Your task to perform on an android device: open chrome privacy settings Image 0: 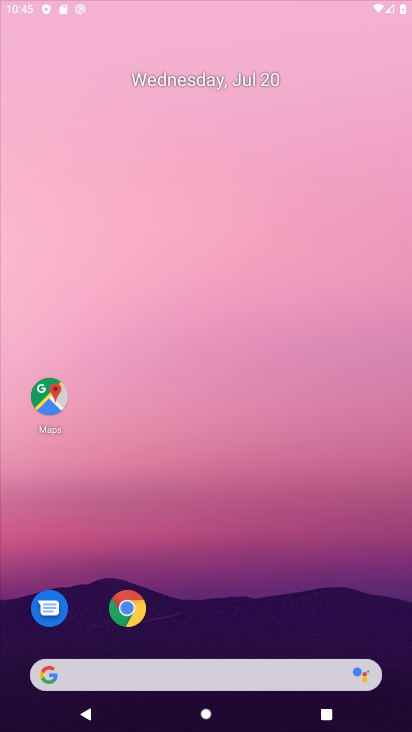
Step 0: drag from (349, 626) to (232, 100)
Your task to perform on an android device: open chrome privacy settings Image 1: 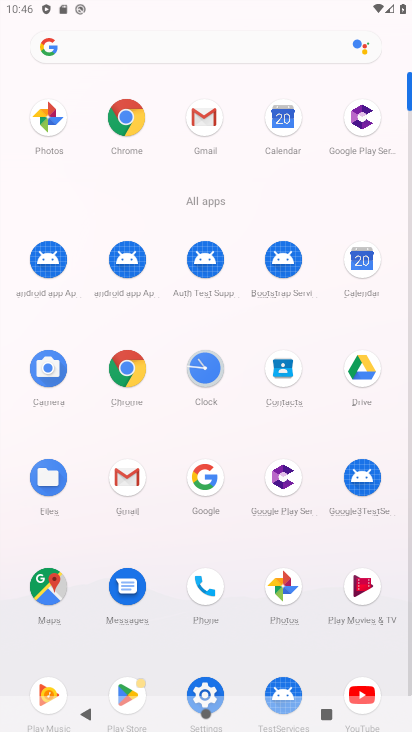
Step 1: click (117, 380)
Your task to perform on an android device: open chrome privacy settings Image 2: 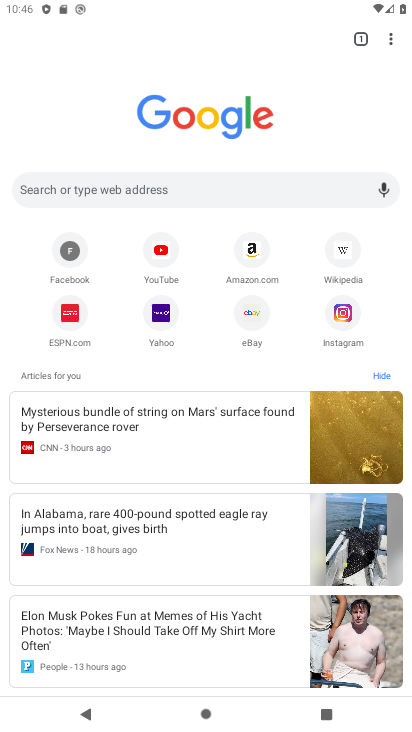
Step 2: click (390, 35)
Your task to perform on an android device: open chrome privacy settings Image 3: 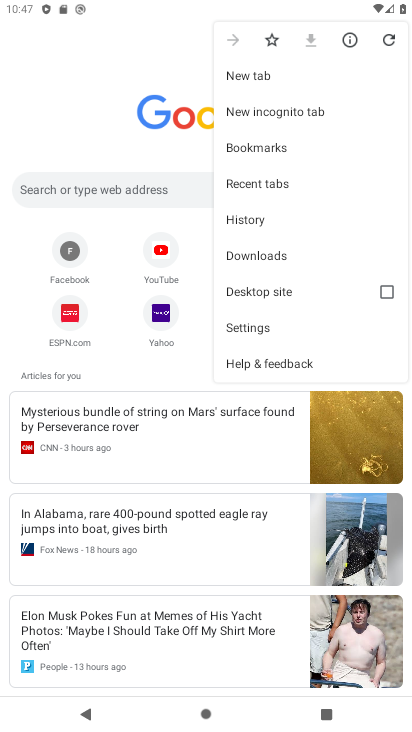
Step 3: click (259, 324)
Your task to perform on an android device: open chrome privacy settings Image 4: 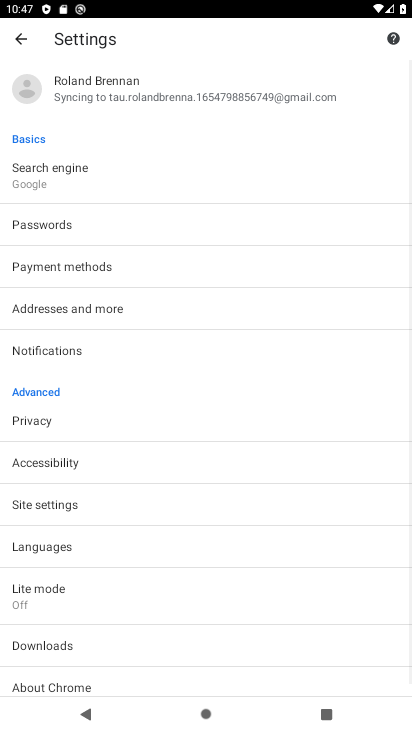
Step 4: click (60, 429)
Your task to perform on an android device: open chrome privacy settings Image 5: 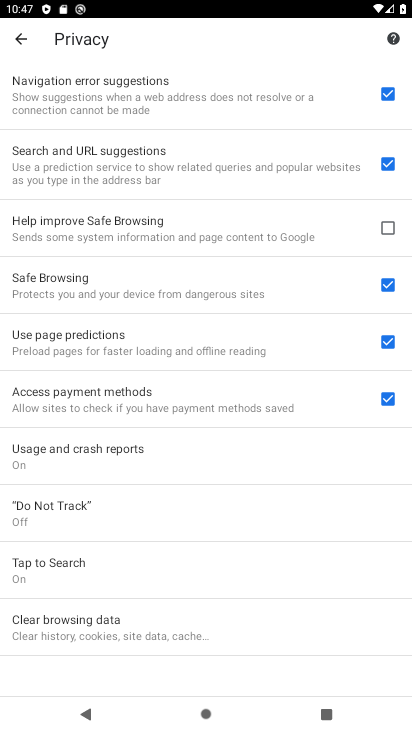
Step 5: task complete